Your task to perform on an android device: open wifi settings Image 0: 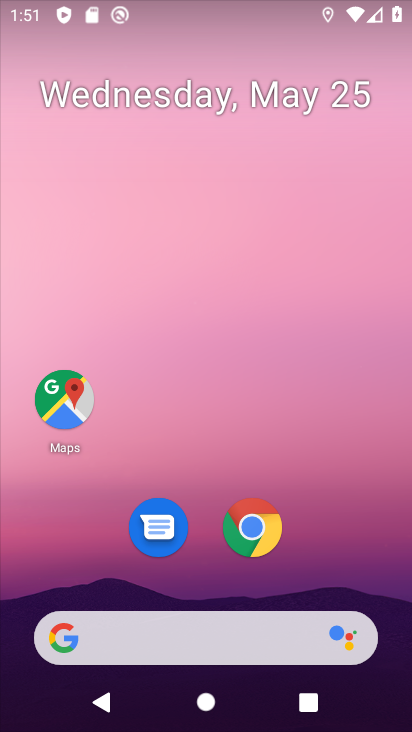
Step 0: drag from (116, 610) to (241, 153)
Your task to perform on an android device: open wifi settings Image 1: 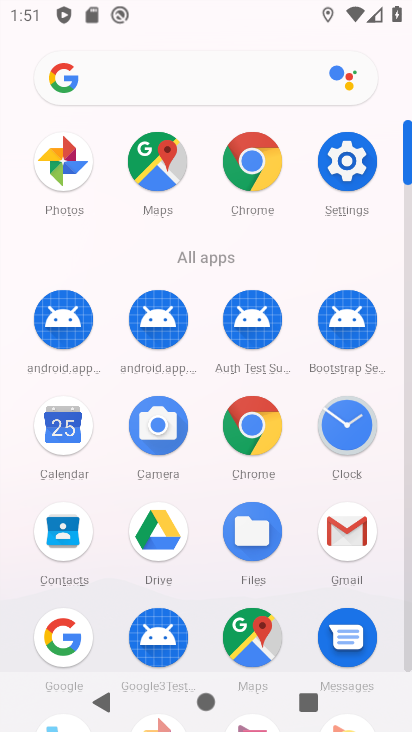
Step 1: drag from (185, 670) to (240, 392)
Your task to perform on an android device: open wifi settings Image 2: 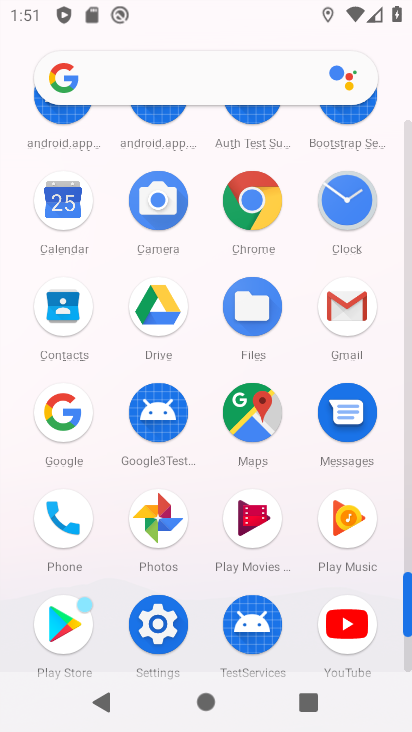
Step 2: drag from (204, 662) to (218, 598)
Your task to perform on an android device: open wifi settings Image 3: 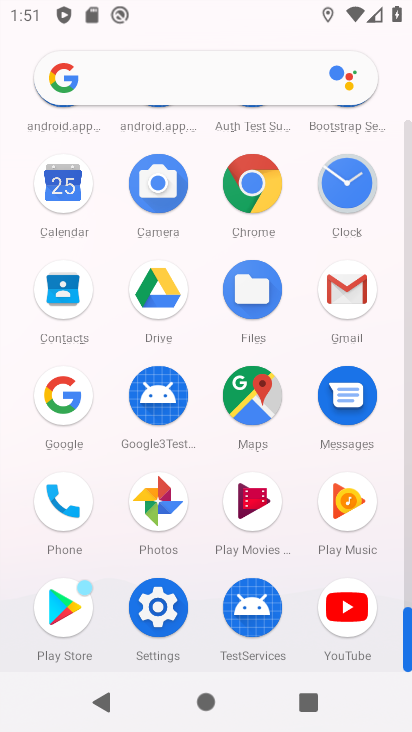
Step 3: click (156, 611)
Your task to perform on an android device: open wifi settings Image 4: 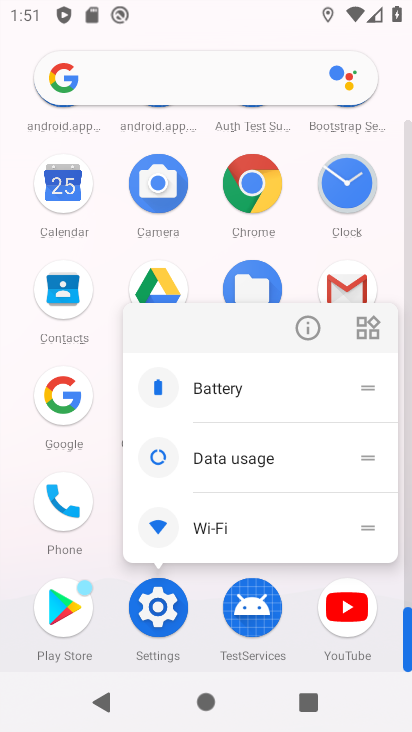
Step 4: click (157, 613)
Your task to perform on an android device: open wifi settings Image 5: 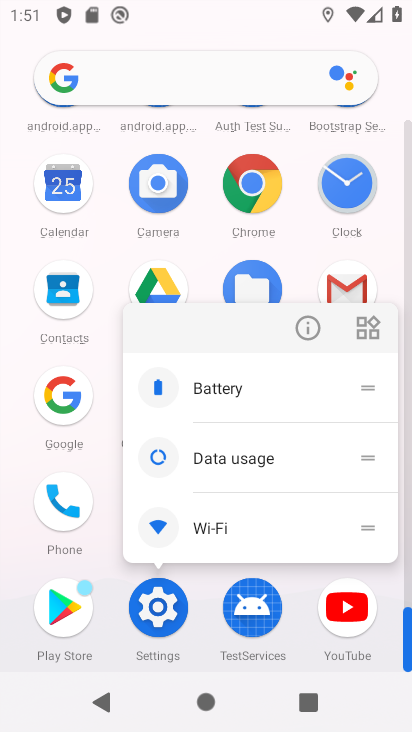
Step 5: click (158, 614)
Your task to perform on an android device: open wifi settings Image 6: 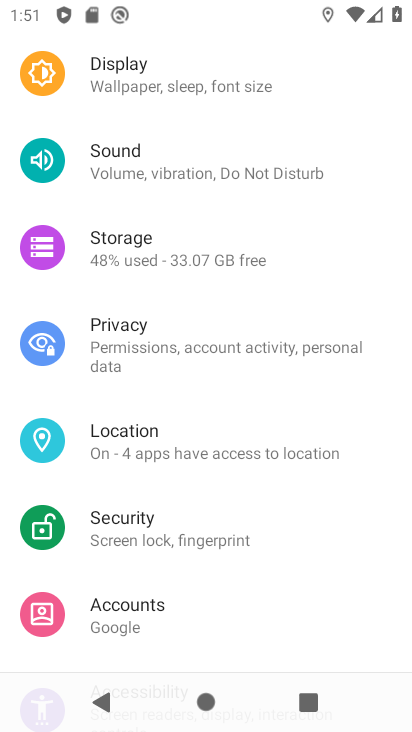
Step 6: drag from (266, 163) to (245, 583)
Your task to perform on an android device: open wifi settings Image 7: 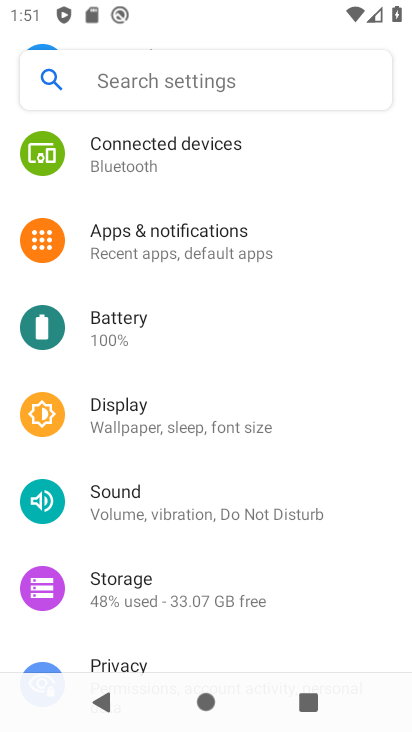
Step 7: drag from (227, 189) to (230, 525)
Your task to perform on an android device: open wifi settings Image 8: 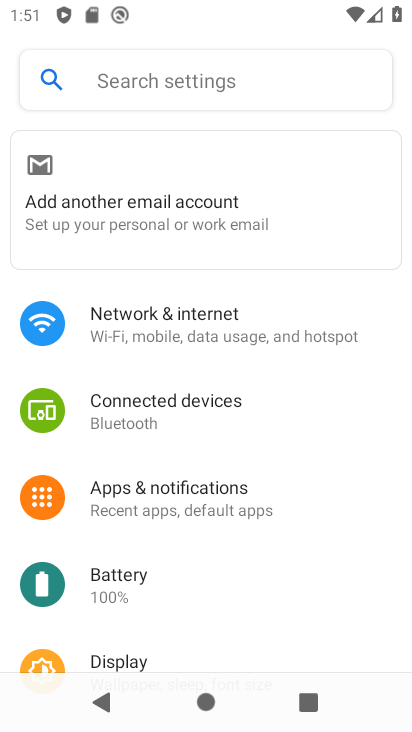
Step 8: click (219, 312)
Your task to perform on an android device: open wifi settings Image 9: 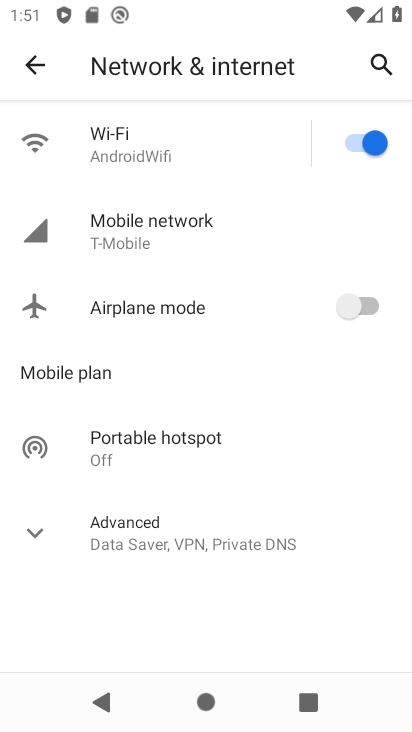
Step 9: click (200, 156)
Your task to perform on an android device: open wifi settings Image 10: 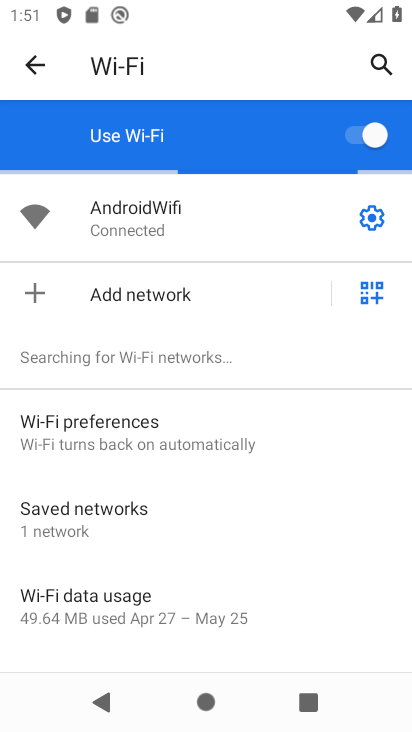
Step 10: task complete